Your task to perform on an android device: Search for alienware aurora on bestbuy, select the first entry, add it to the cart, then select checkout. Image 0: 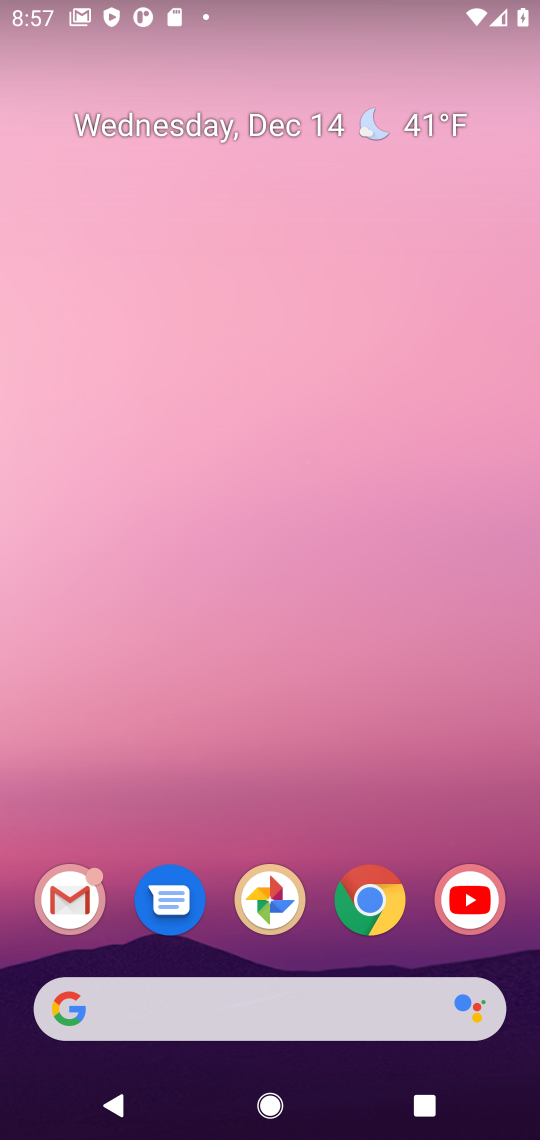
Step 0: click (384, 909)
Your task to perform on an android device: Search for alienware aurora on bestbuy, select the first entry, add it to the cart, then select checkout. Image 1: 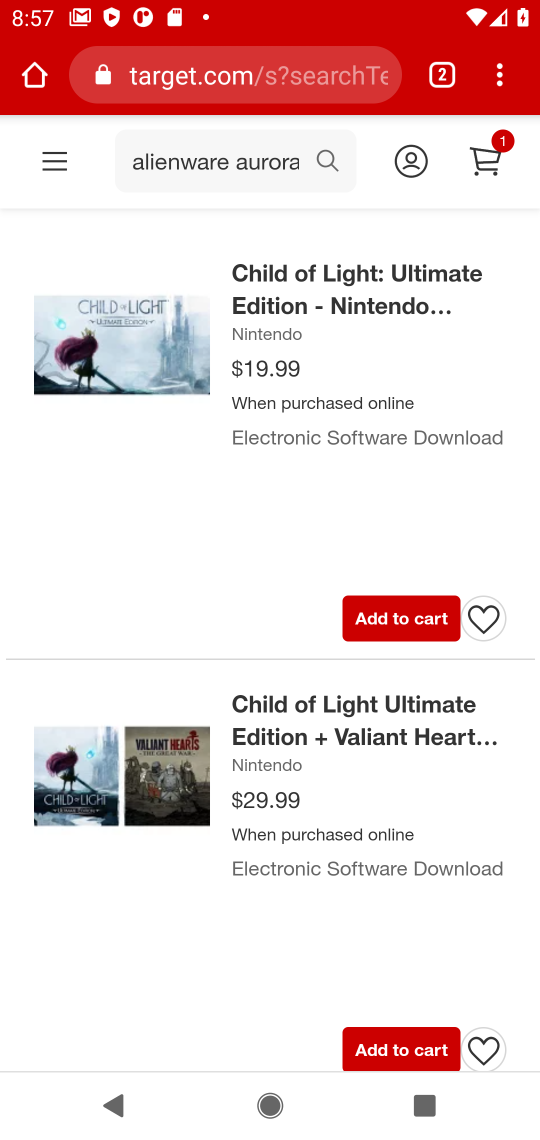
Step 1: click (212, 71)
Your task to perform on an android device: Search for alienware aurora on bestbuy, select the first entry, add it to the cart, then select checkout. Image 2: 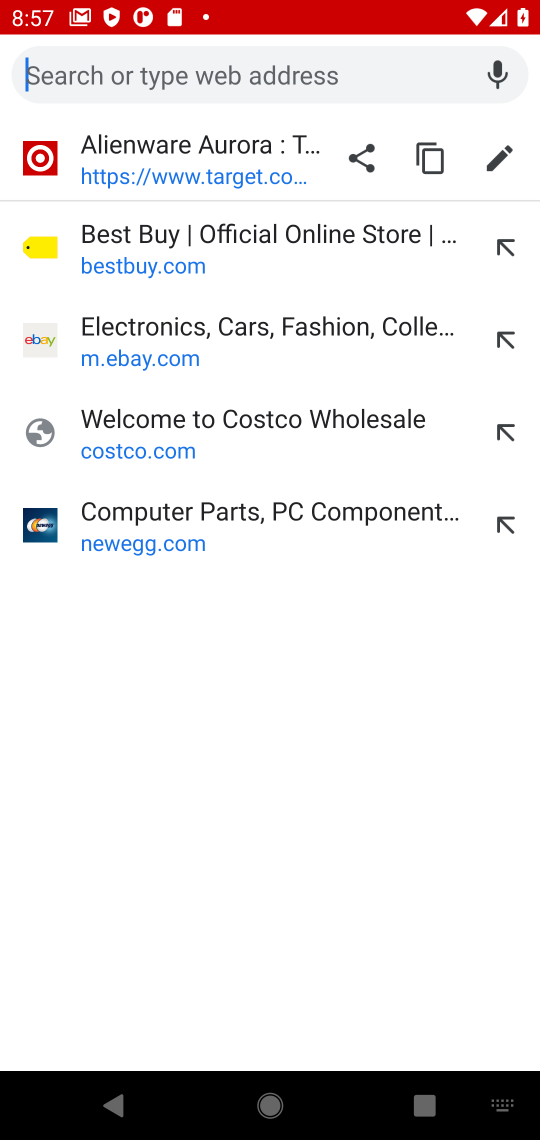
Step 2: click (114, 261)
Your task to perform on an android device: Search for alienware aurora on bestbuy, select the first entry, add it to the cart, then select checkout. Image 3: 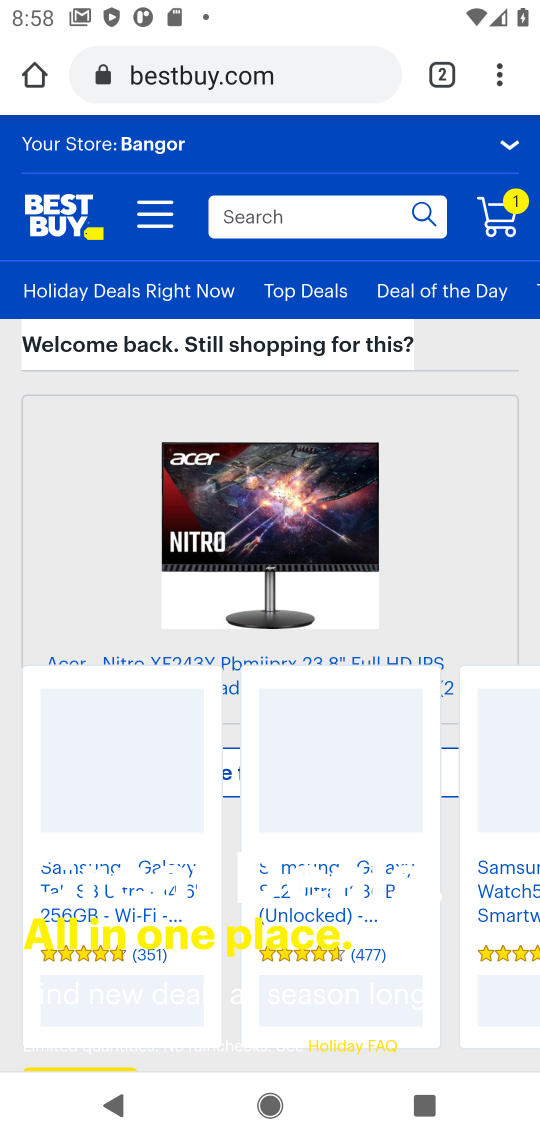
Step 3: click (234, 221)
Your task to perform on an android device: Search for alienware aurora on bestbuy, select the first entry, add it to the cart, then select checkout. Image 4: 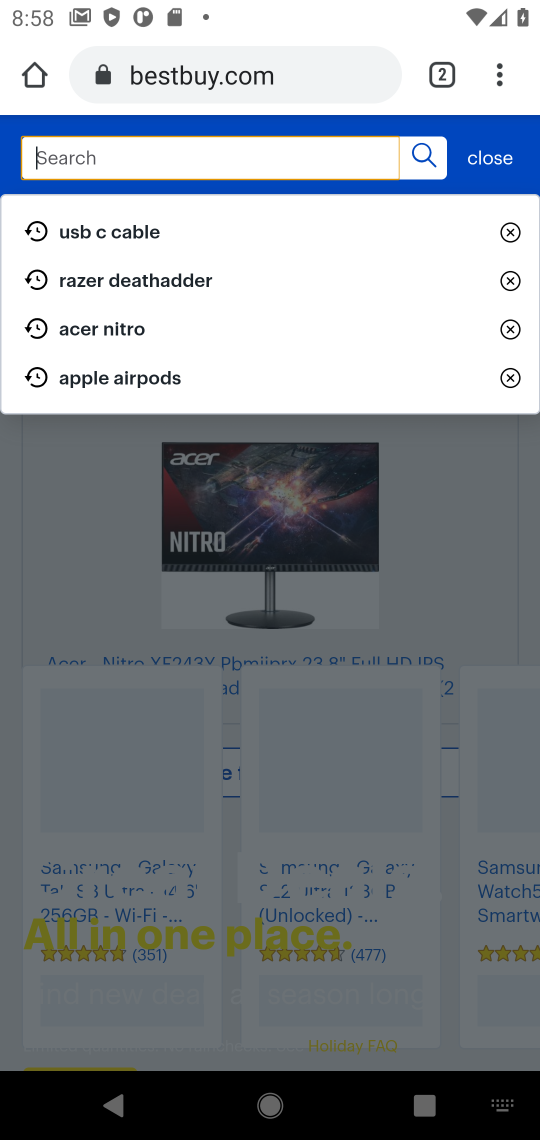
Step 4: type "alienware aurora"
Your task to perform on an android device: Search for alienware aurora on bestbuy, select the first entry, add it to the cart, then select checkout. Image 5: 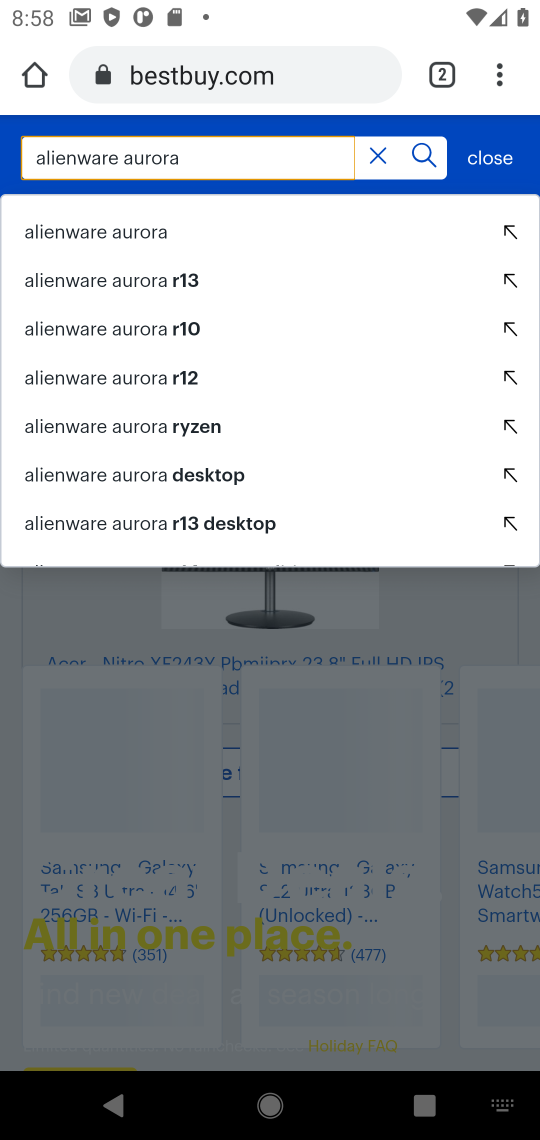
Step 5: click (108, 237)
Your task to perform on an android device: Search for alienware aurora on bestbuy, select the first entry, add it to the cart, then select checkout. Image 6: 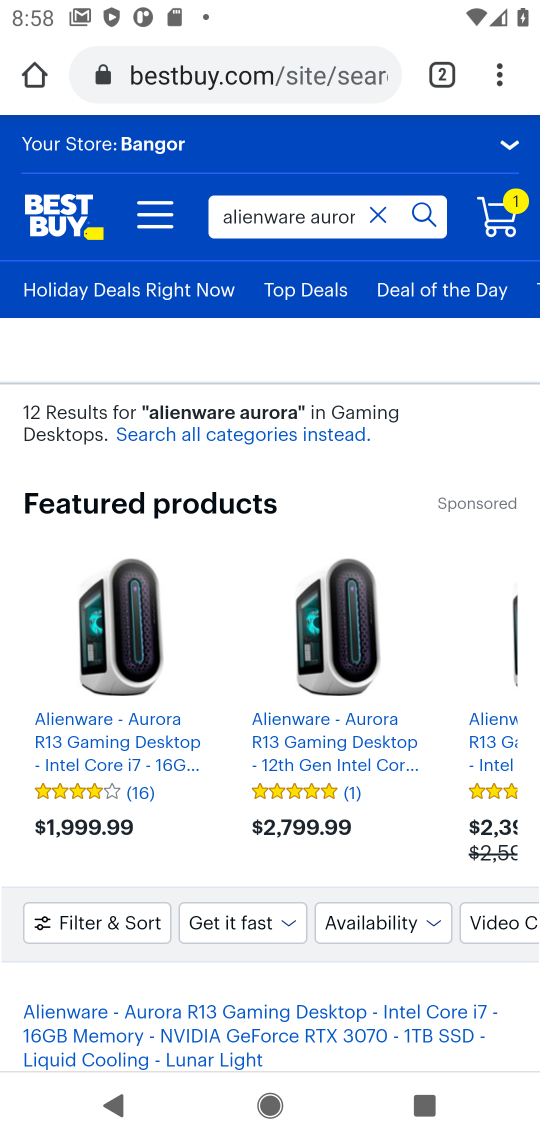
Step 6: drag from (203, 819) to (214, 395)
Your task to perform on an android device: Search for alienware aurora on bestbuy, select the first entry, add it to the cart, then select checkout. Image 7: 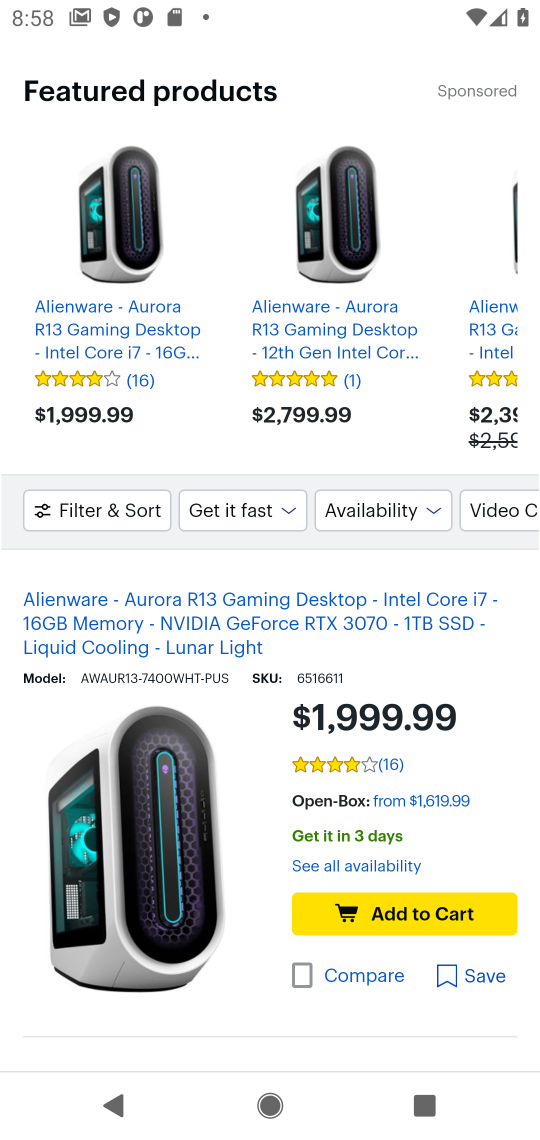
Step 7: click (374, 911)
Your task to perform on an android device: Search for alienware aurora on bestbuy, select the first entry, add it to the cart, then select checkout. Image 8: 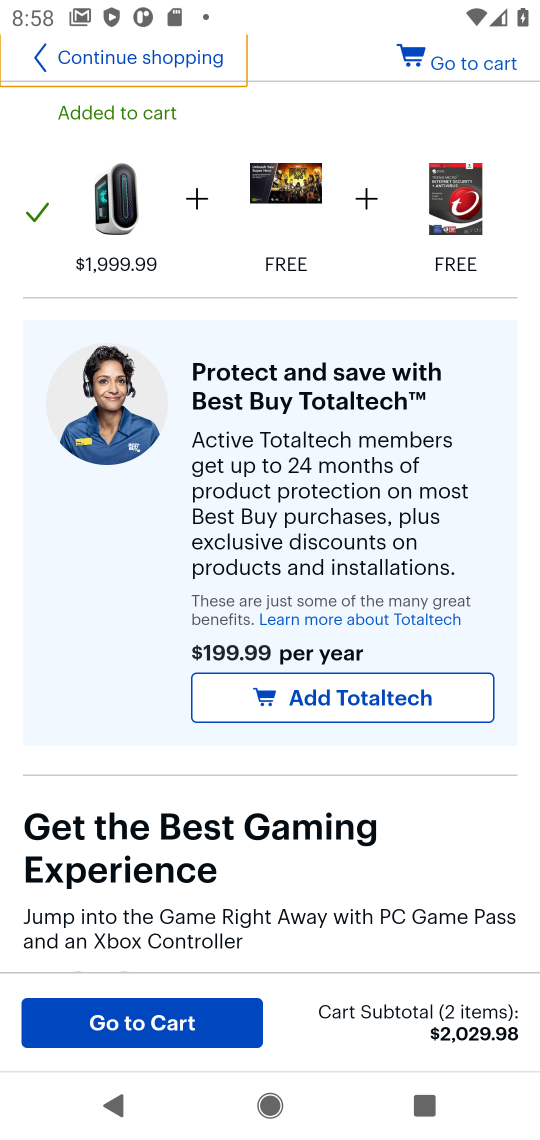
Step 8: click (462, 60)
Your task to perform on an android device: Search for alienware aurora on bestbuy, select the first entry, add it to the cart, then select checkout. Image 9: 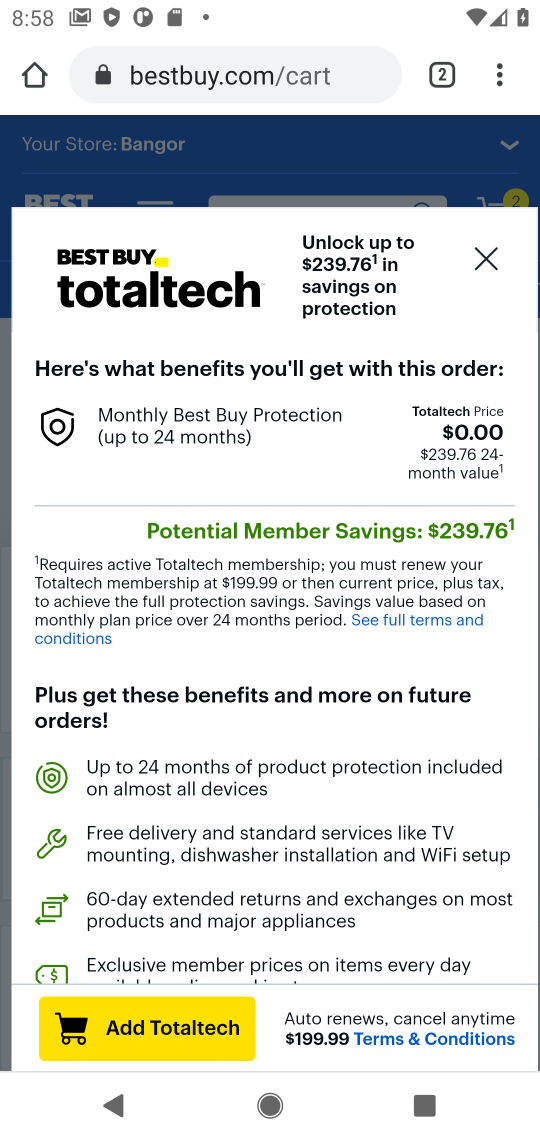
Step 9: click (257, 676)
Your task to perform on an android device: Search for alienware aurora on bestbuy, select the first entry, add it to the cart, then select checkout. Image 10: 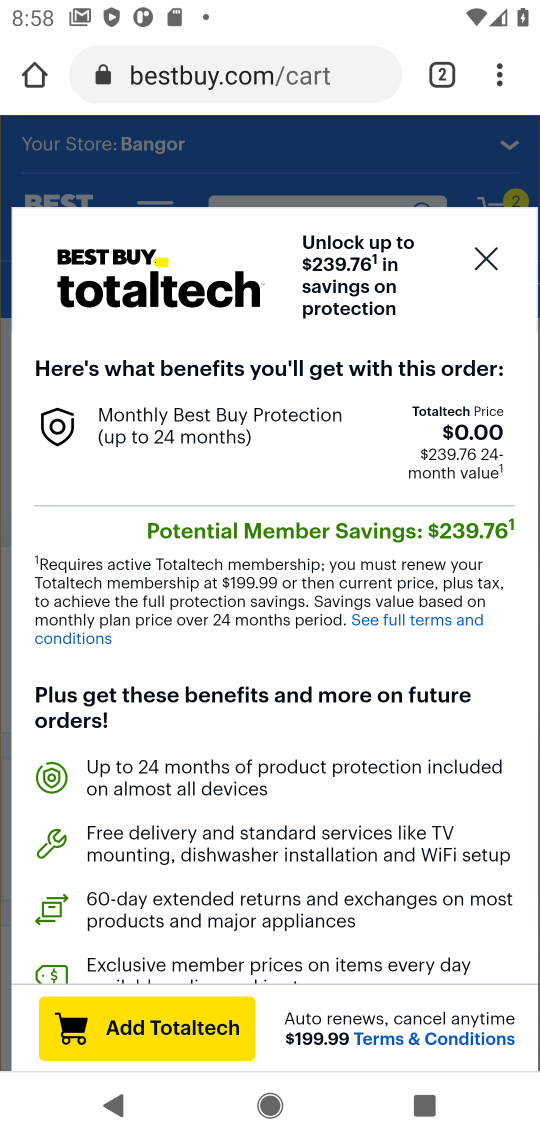
Step 10: click (476, 263)
Your task to perform on an android device: Search for alienware aurora on bestbuy, select the first entry, add it to the cart, then select checkout. Image 11: 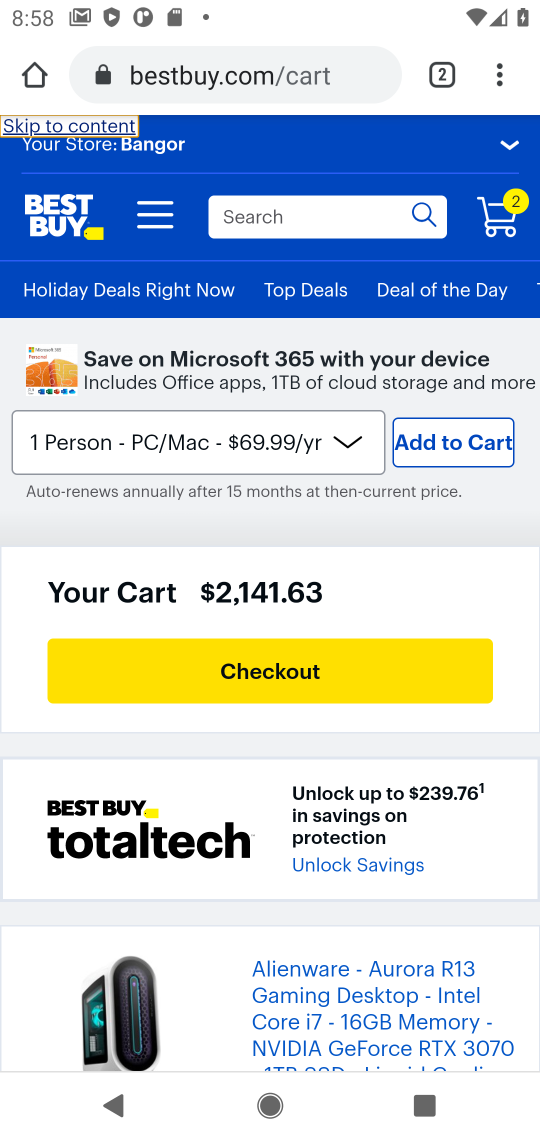
Step 11: click (266, 680)
Your task to perform on an android device: Search for alienware aurora on bestbuy, select the first entry, add it to the cart, then select checkout. Image 12: 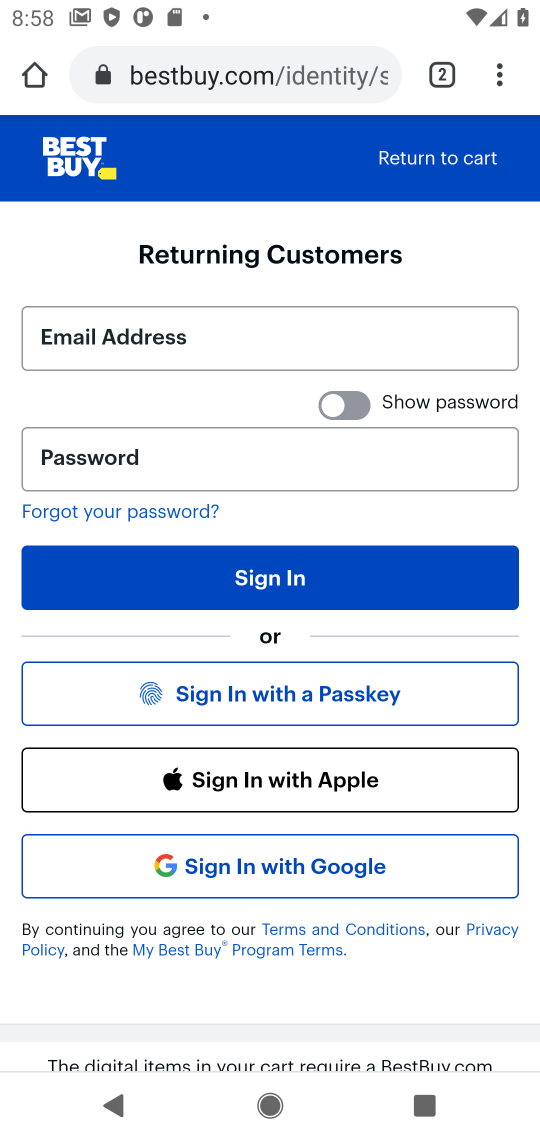
Step 12: task complete